Your task to perform on an android device: Open calendar and show me the first week of next month Image 0: 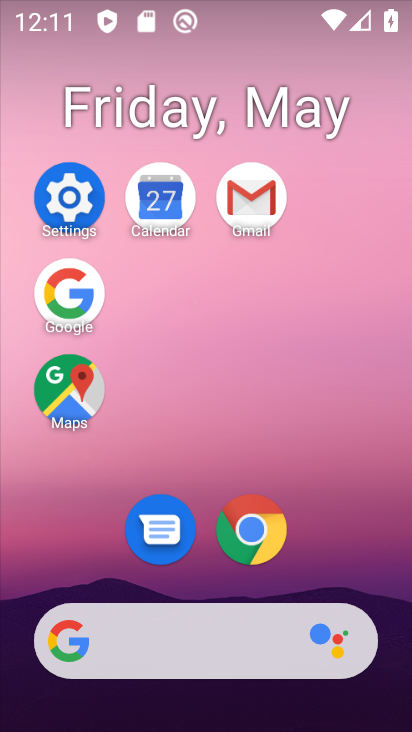
Step 0: click (167, 200)
Your task to perform on an android device: Open calendar and show me the first week of next month Image 1: 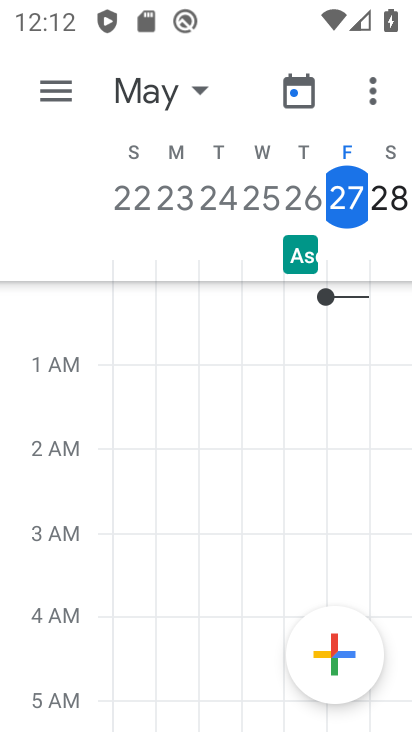
Step 1: click (128, 76)
Your task to perform on an android device: Open calendar and show me the first week of next month Image 2: 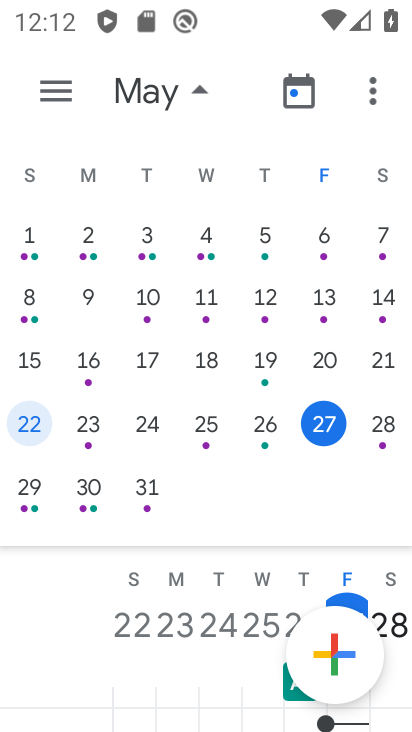
Step 2: drag from (362, 269) to (7, 185)
Your task to perform on an android device: Open calendar and show me the first week of next month Image 3: 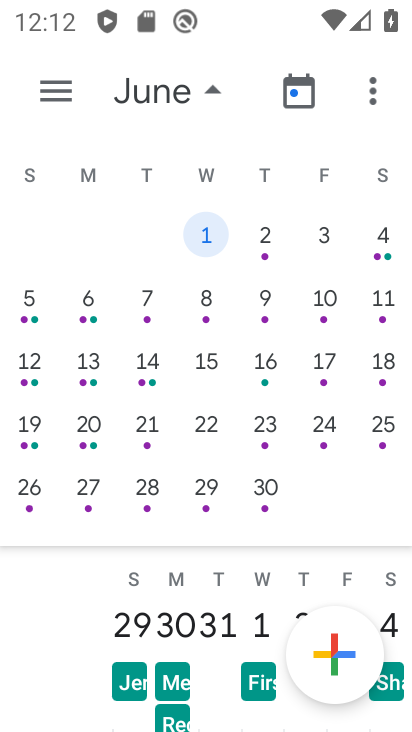
Step 3: click (80, 91)
Your task to perform on an android device: Open calendar and show me the first week of next month Image 4: 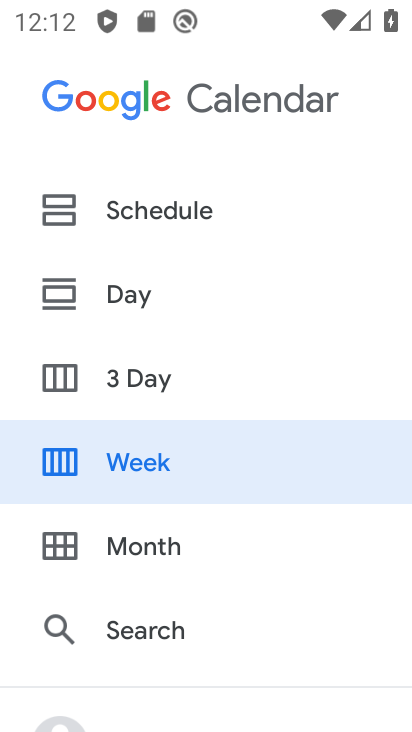
Step 4: click (156, 460)
Your task to perform on an android device: Open calendar and show me the first week of next month Image 5: 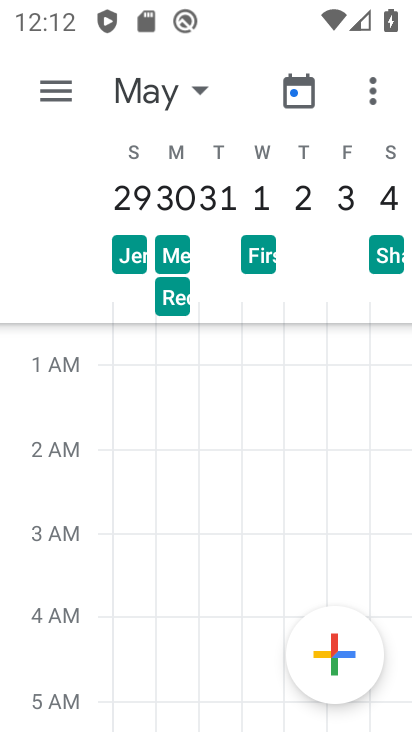
Step 5: task complete